Your task to perform on an android device: Open calendar and show me the second week of next month Image 0: 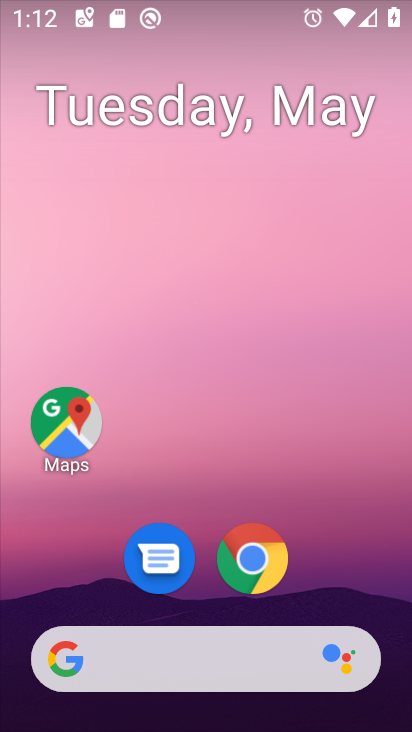
Step 0: drag from (368, 595) to (324, 122)
Your task to perform on an android device: Open calendar and show me the second week of next month Image 1: 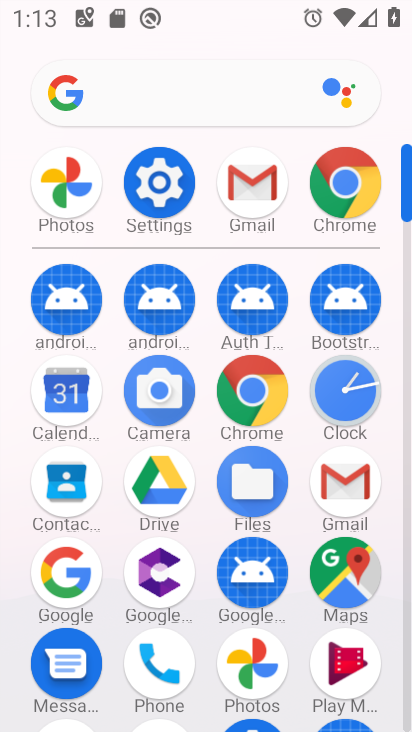
Step 1: click (71, 399)
Your task to perform on an android device: Open calendar and show me the second week of next month Image 2: 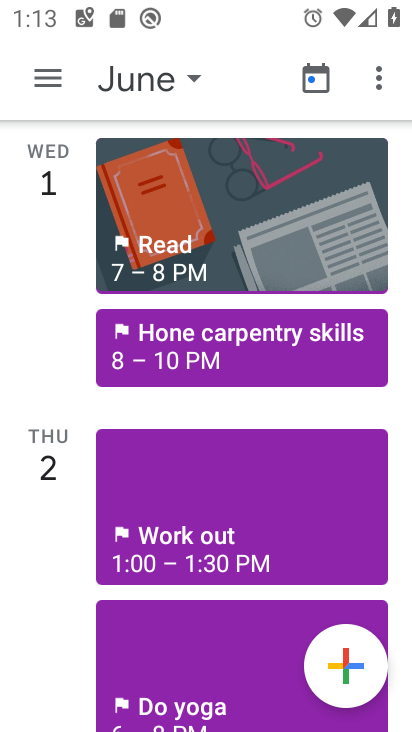
Step 2: click (164, 93)
Your task to perform on an android device: Open calendar and show me the second week of next month Image 3: 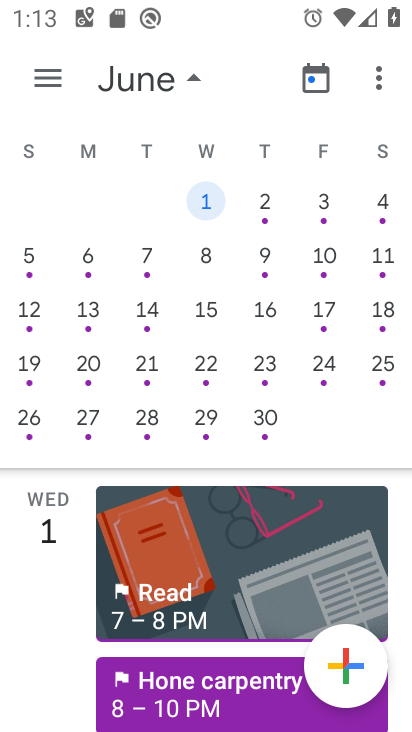
Step 3: click (214, 253)
Your task to perform on an android device: Open calendar and show me the second week of next month Image 4: 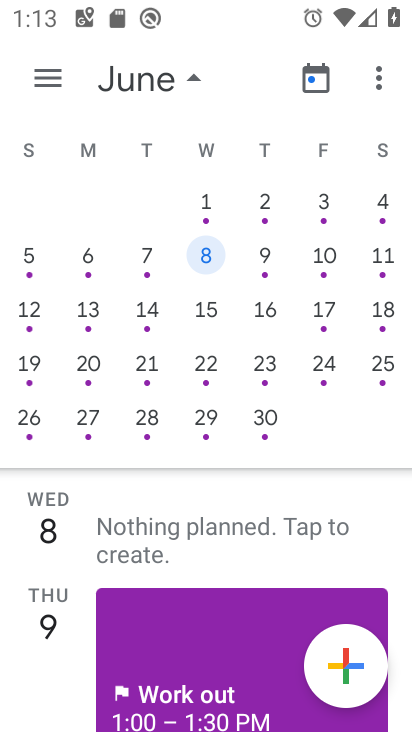
Step 4: click (166, 86)
Your task to perform on an android device: Open calendar and show me the second week of next month Image 5: 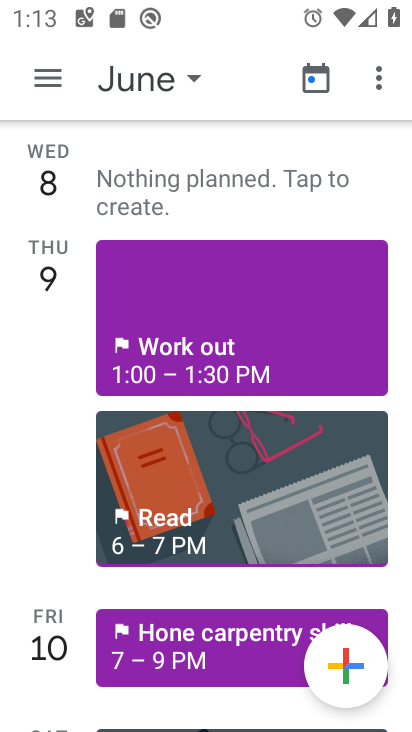
Step 5: click (61, 97)
Your task to perform on an android device: Open calendar and show me the second week of next month Image 6: 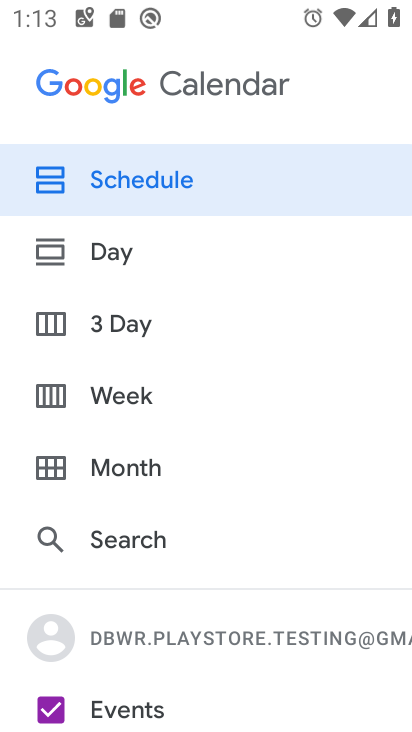
Step 6: click (157, 404)
Your task to perform on an android device: Open calendar and show me the second week of next month Image 7: 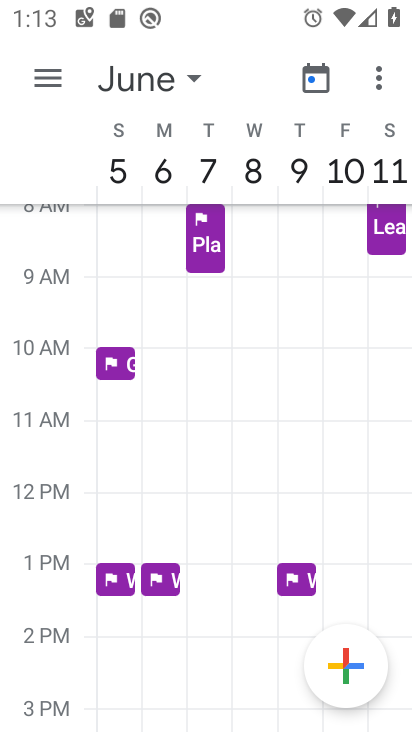
Step 7: task complete